Your task to perform on an android device: find snoozed emails in the gmail app Image 0: 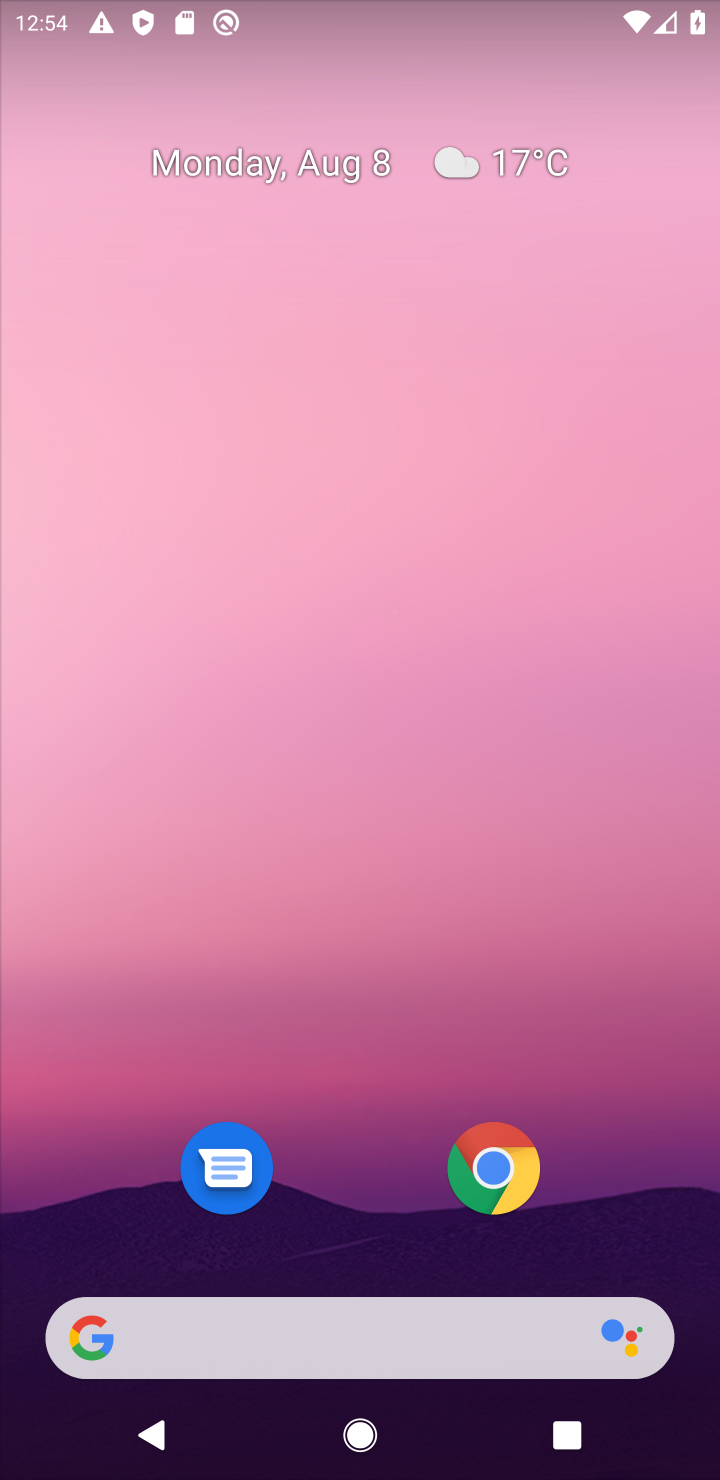
Step 0: click (353, 498)
Your task to perform on an android device: find snoozed emails in the gmail app Image 1: 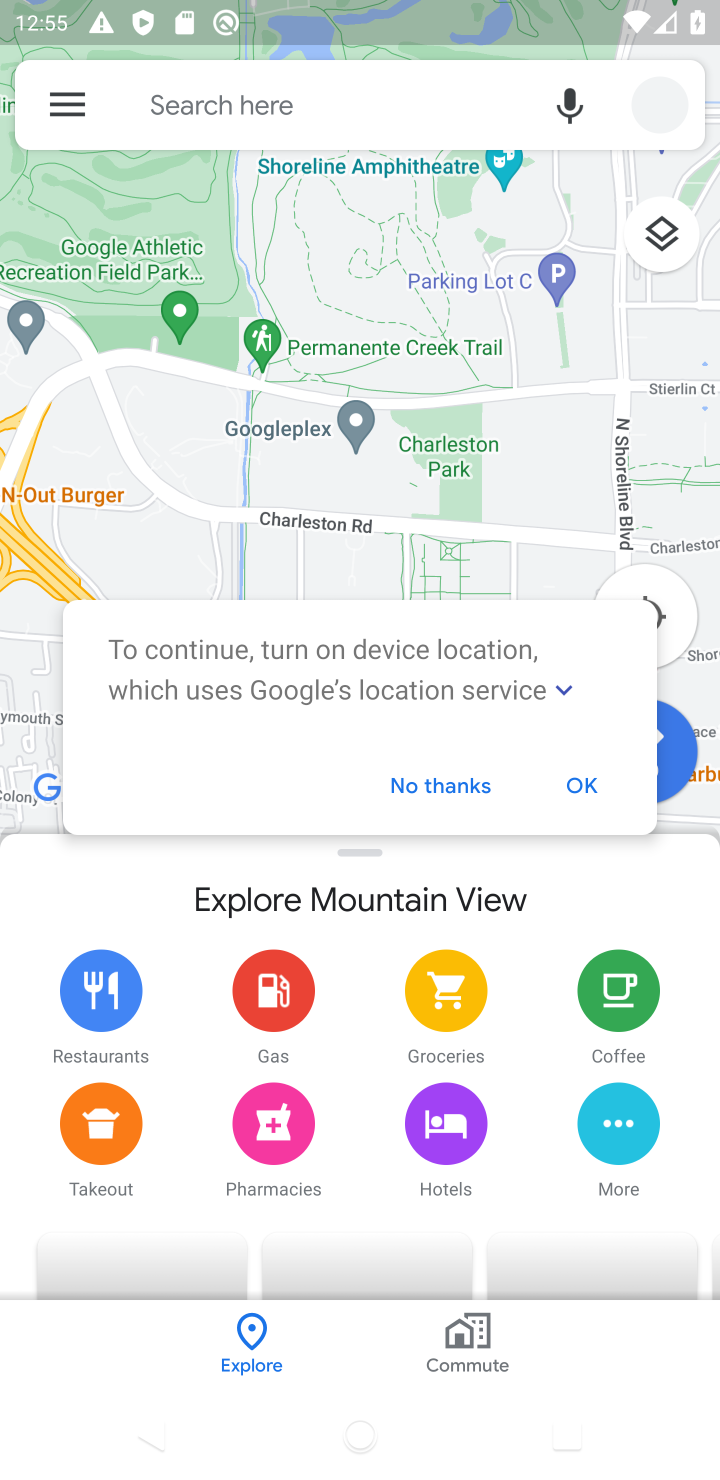
Step 1: click (598, 792)
Your task to perform on an android device: find snoozed emails in the gmail app Image 2: 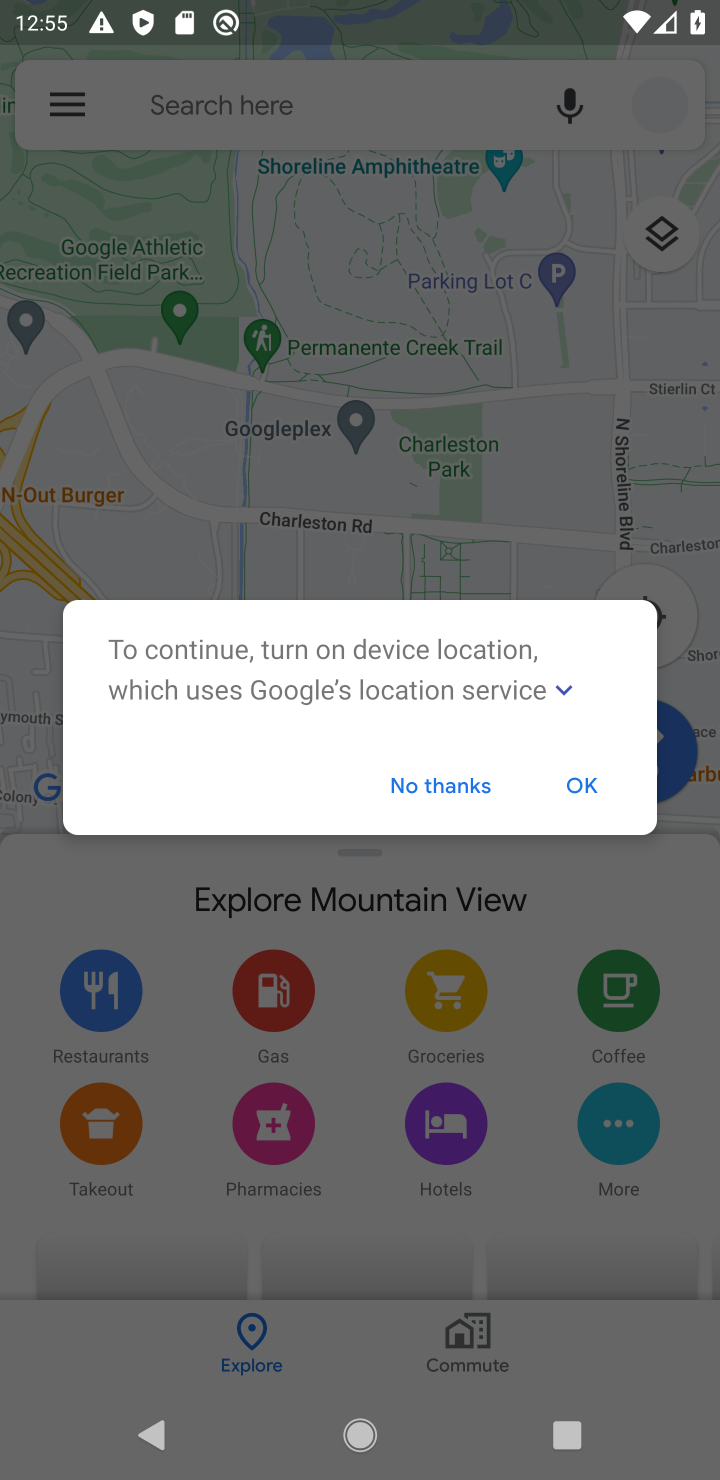
Step 2: task complete